Your task to perform on an android device: toggle location history Image 0: 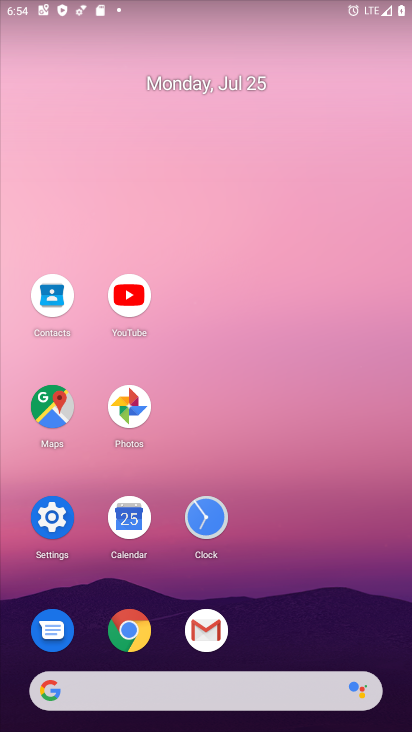
Step 0: click (50, 406)
Your task to perform on an android device: toggle location history Image 1: 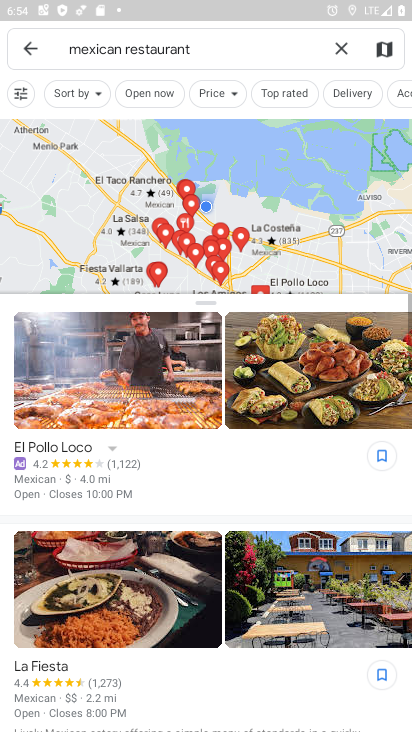
Step 1: click (29, 46)
Your task to perform on an android device: toggle location history Image 2: 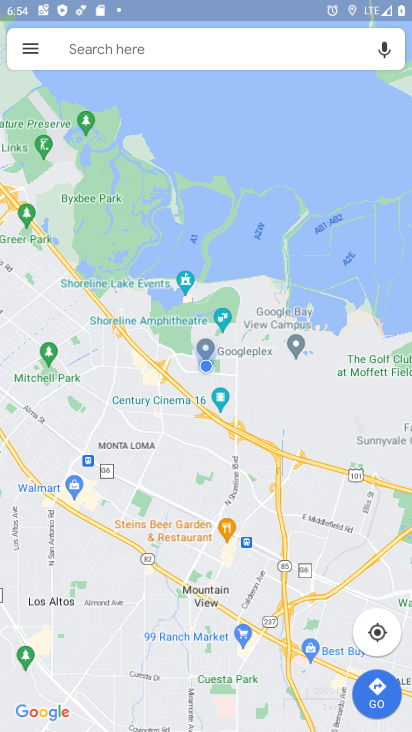
Step 2: click (24, 50)
Your task to perform on an android device: toggle location history Image 3: 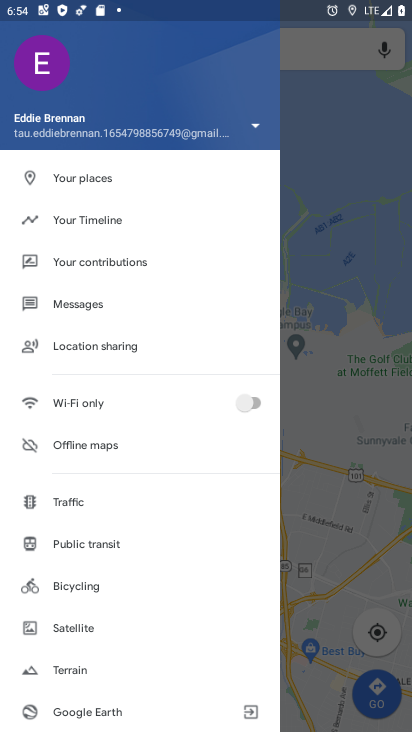
Step 3: click (86, 214)
Your task to perform on an android device: toggle location history Image 4: 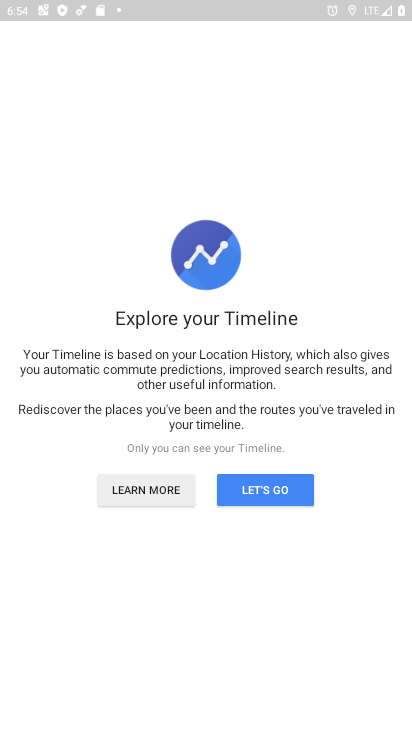
Step 4: click (262, 490)
Your task to perform on an android device: toggle location history Image 5: 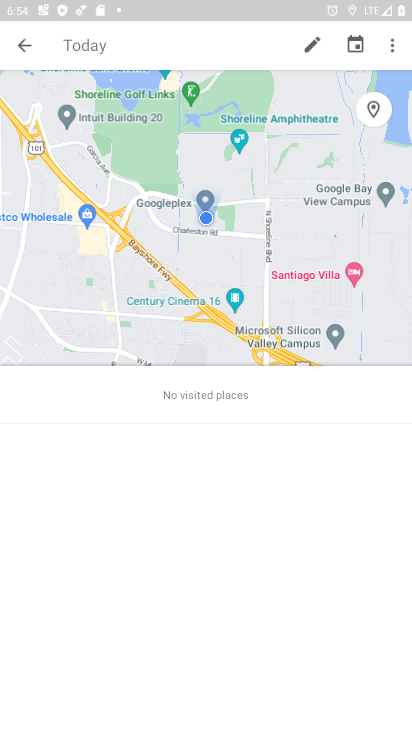
Step 5: click (390, 46)
Your task to perform on an android device: toggle location history Image 6: 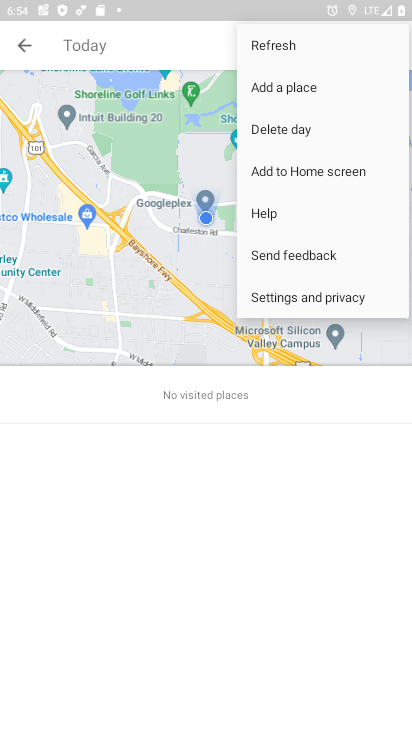
Step 6: click (302, 296)
Your task to perform on an android device: toggle location history Image 7: 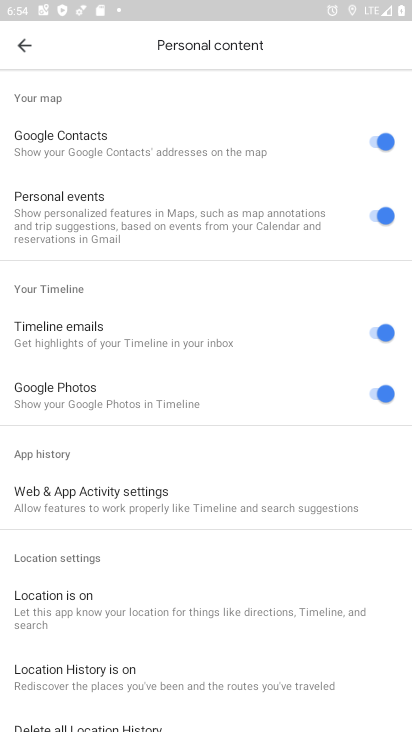
Step 7: drag from (207, 584) to (183, 364)
Your task to perform on an android device: toggle location history Image 8: 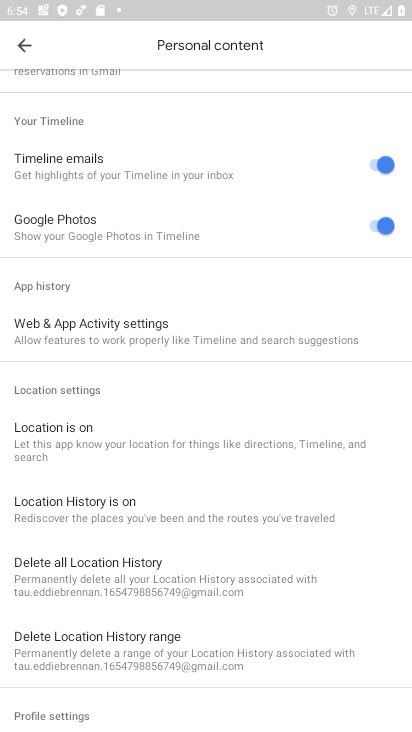
Step 8: click (85, 498)
Your task to perform on an android device: toggle location history Image 9: 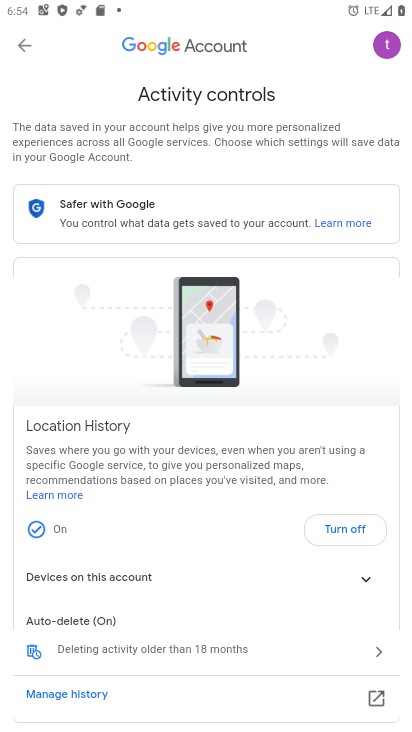
Step 9: click (347, 526)
Your task to perform on an android device: toggle location history Image 10: 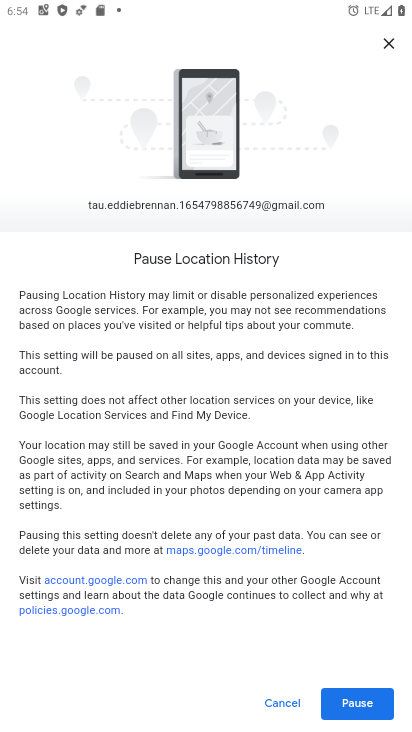
Step 10: click (348, 705)
Your task to perform on an android device: toggle location history Image 11: 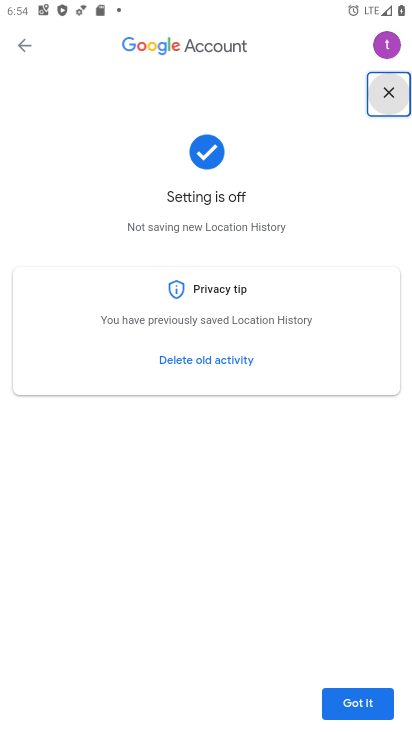
Step 11: click (344, 695)
Your task to perform on an android device: toggle location history Image 12: 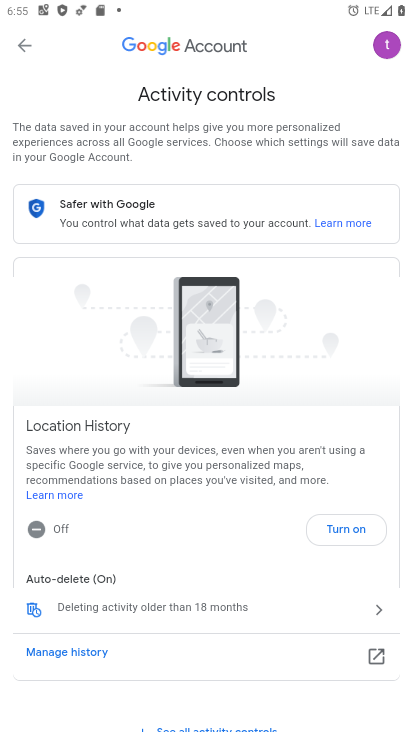
Step 12: task complete